Your task to perform on an android device: Go to settings Image 0: 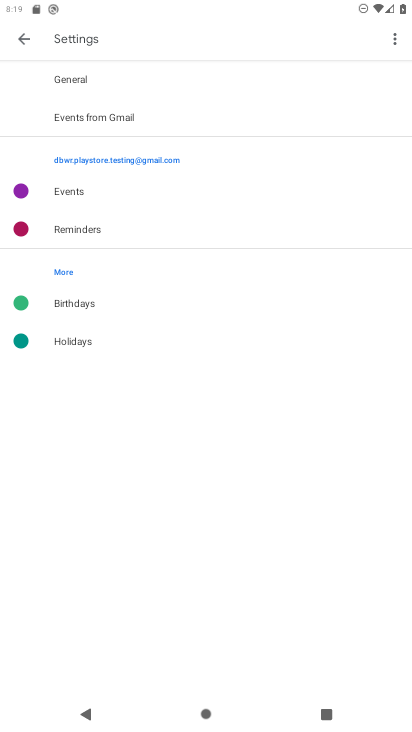
Step 0: press home button
Your task to perform on an android device: Go to settings Image 1: 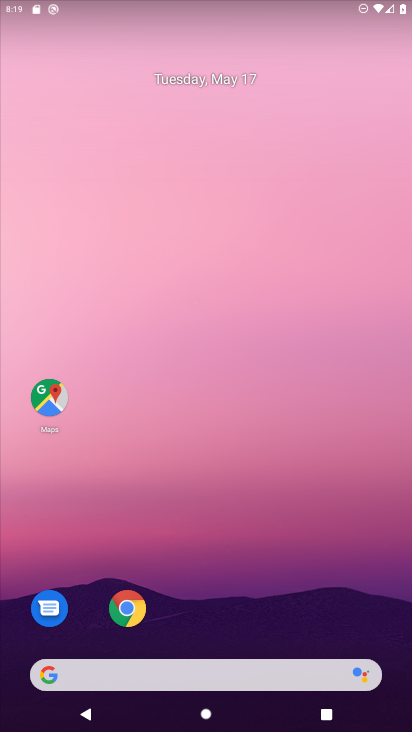
Step 1: drag from (184, 599) to (354, 1)
Your task to perform on an android device: Go to settings Image 2: 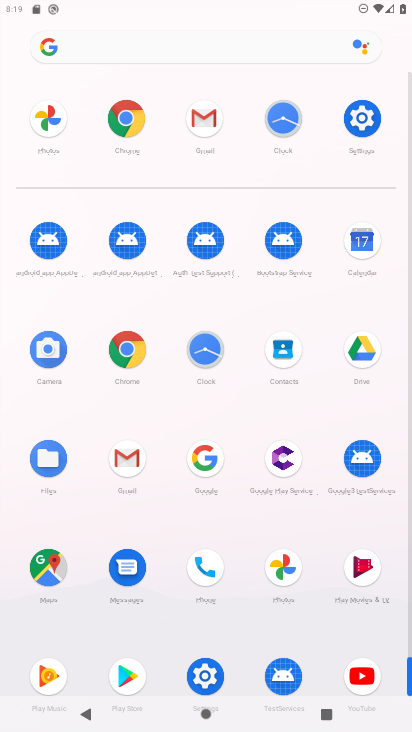
Step 2: click (366, 121)
Your task to perform on an android device: Go to settings Image 3: 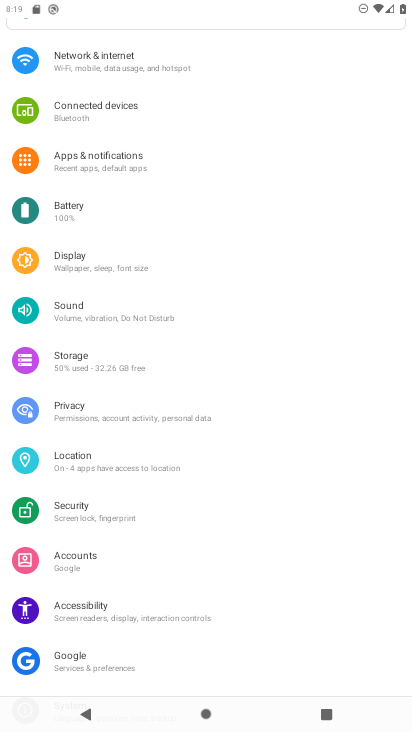
Step 3: task complete